Your task to perform on an android device: change the upload size in google photos Image 0: 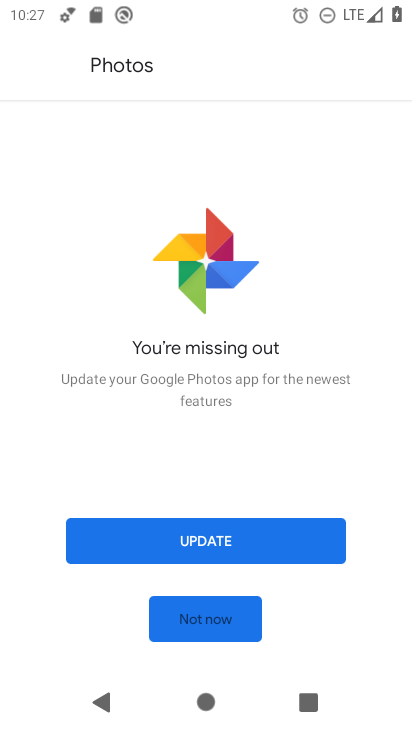
Step 0: click (284, 552)
Your task to perform on an android device: change the upload size in google photos Image 1: 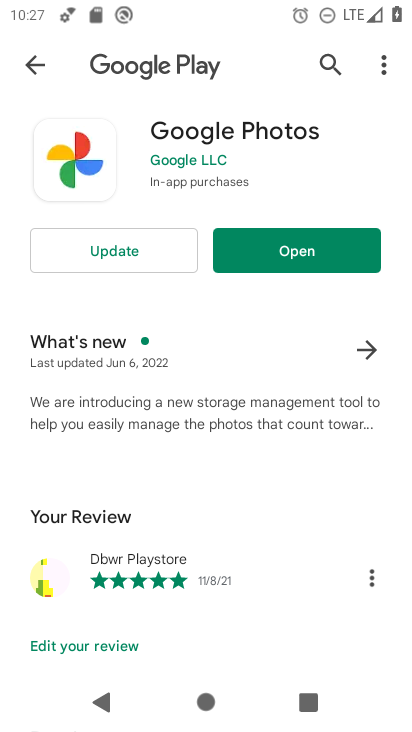
Step 1: click (163, 261)
Your task to perform on an android device: change the upload size in google photos Image 2: 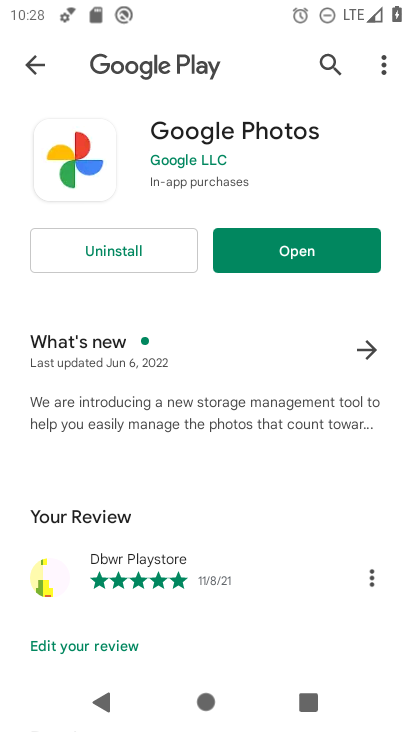
Step 2: click (308, 256)
Your task to perform on an android device: change the upload size in google photos Image 3: 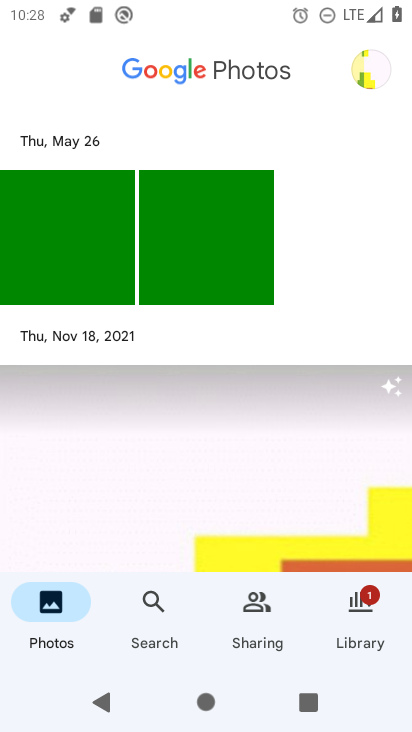
Step 3: click (373, 63)
Your task to perform on an android device: change the upload size in google photos Image 4: 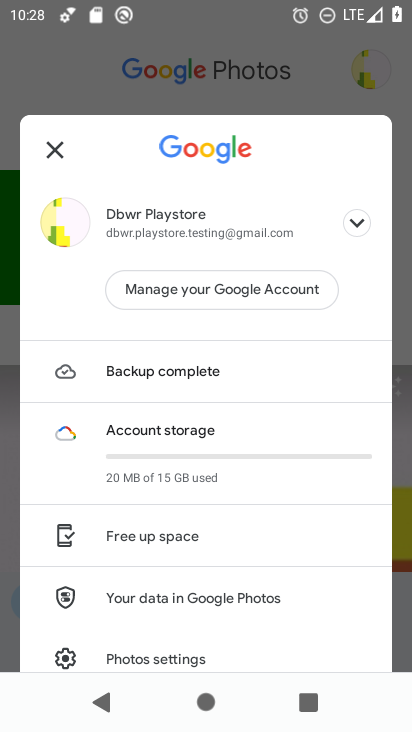
Step 4: drag from (298, 552) to (303, 432)
Your task to perform on an android device: change the upload size in google photos Image 5: 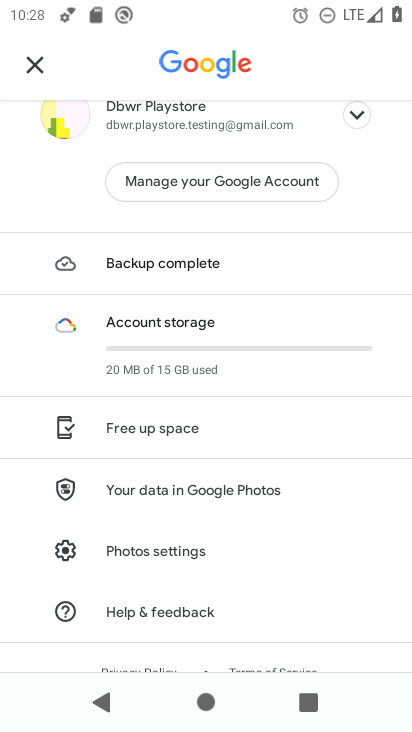
Step 5: click (206, 558)
Your task to perform on an android device: change the upload size in google photos Image 6: 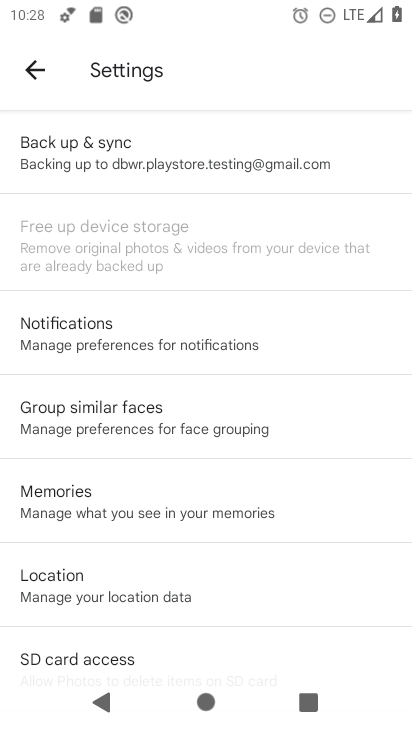
Step 6: click (258, 165)
Your task to perform on an android device: change the upload size in google photos Image 7: 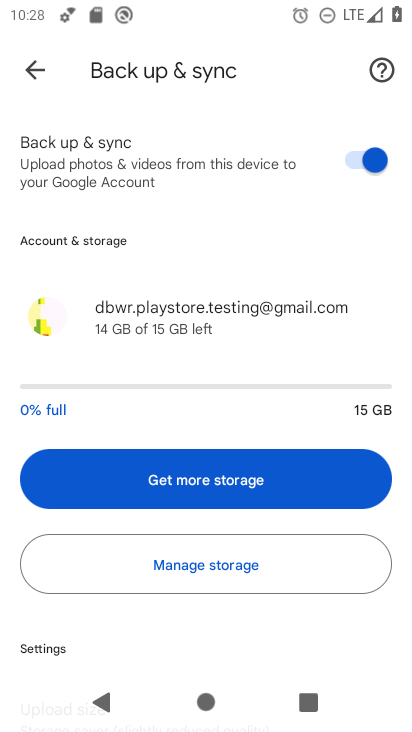
Step 7: drag from (249, 357) to (240, 206)
Your task to perform on an android device: change the upload size in google photos Image 8: 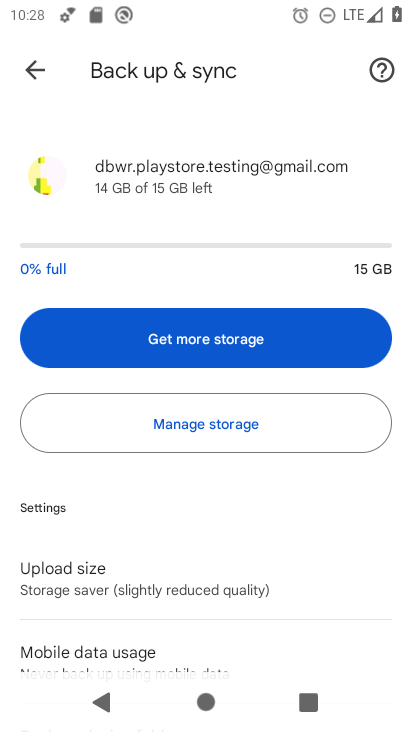
Step 8: click (164, 584)
Your task to perform on an android device: change the upload size in google photos Image 9: 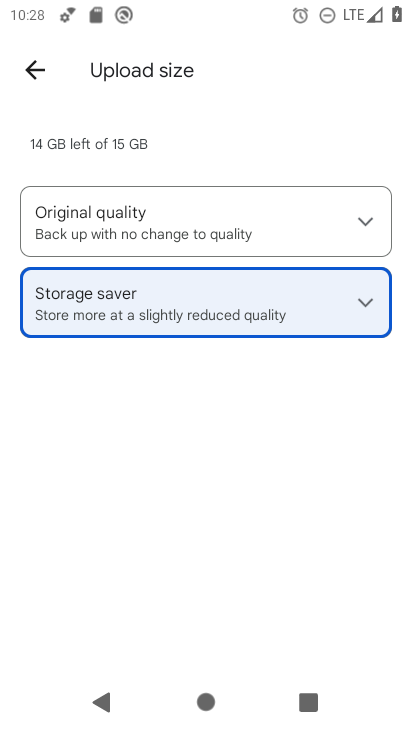
Step 9: click (204, 210)
Your task to perform on an android device: change the upload size in google photos Image 10: 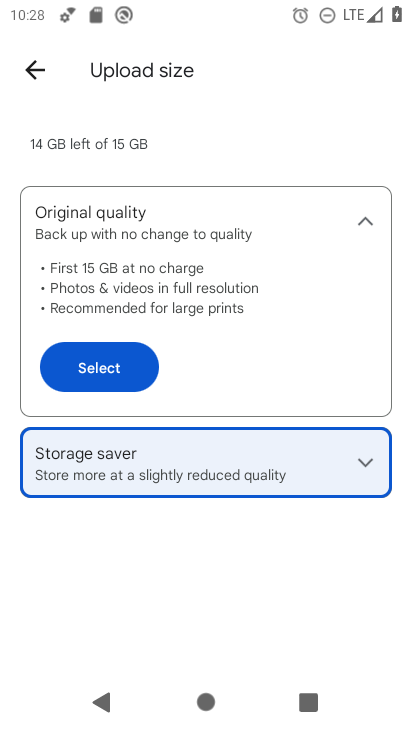
Step 10: click (115, 368)
Your task to perform on an android device: change the upload size in google photos Image 11: 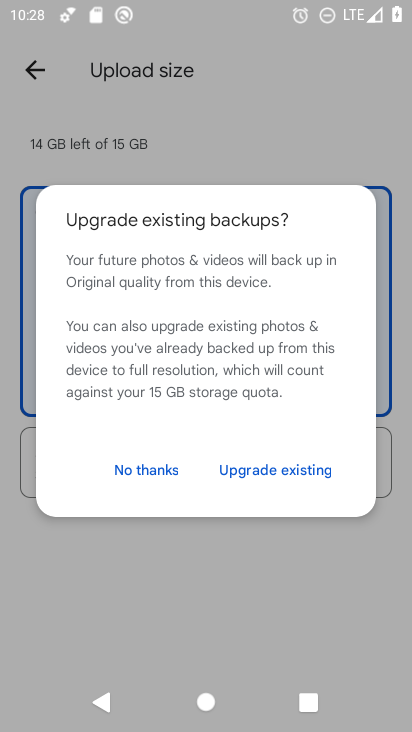
Step 11: task complete